Your task to perform on an android device: turn on javascript in the chrome app Image 0: 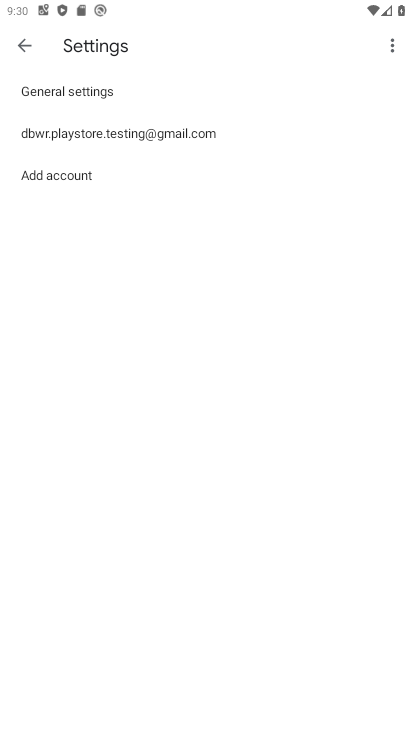
Step 0: press home button
Your task to perform on an android device: turn on javascript in the chrome app Image 1: 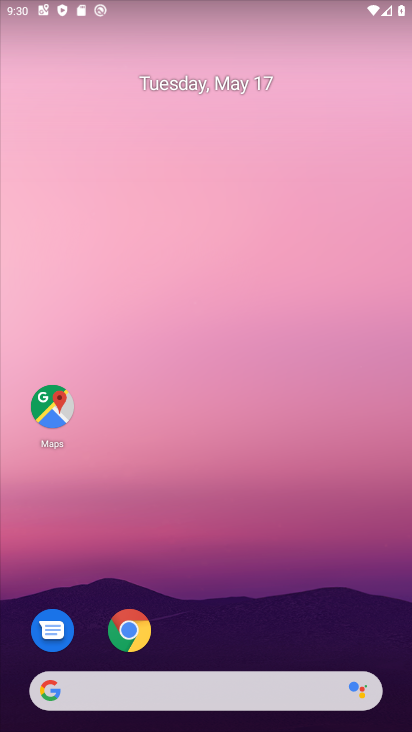
Step 1: click (129, 631)
Your task to perform on an android device: turn on javascript in the chrome app Image 2: 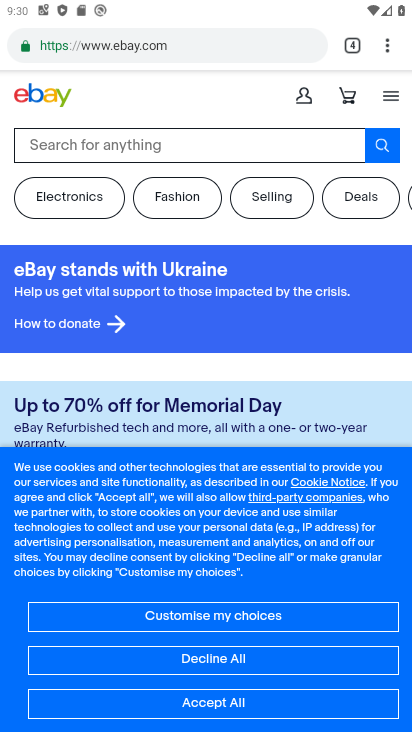
Step 2: click (397, 44)
Your task to perform on an android device: turn on javascript in the chrome app Image 3: 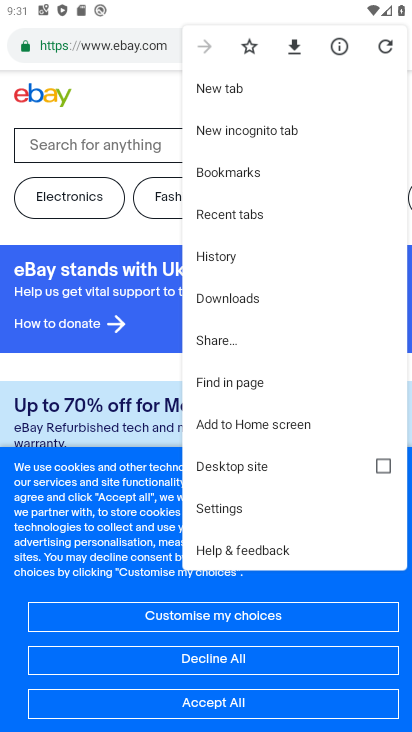
Step 3: click (231, 503)
Your task to perform on an android device: turn on javascript in the chrome app Image 4: 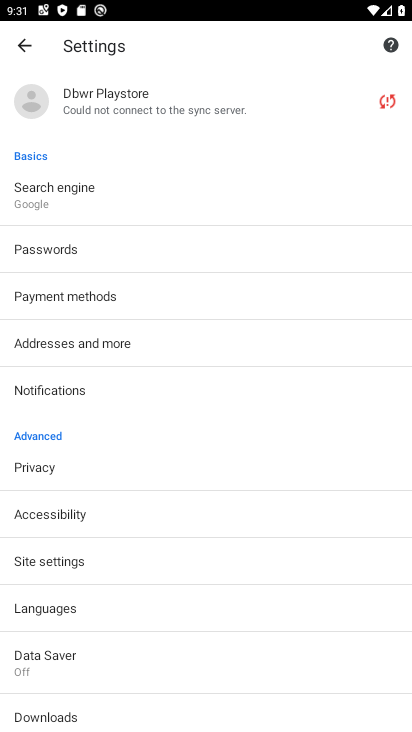
Step 4: click (67, 562)
Your task to perform on an android device: turn on javascript in the chrome app Image 5: 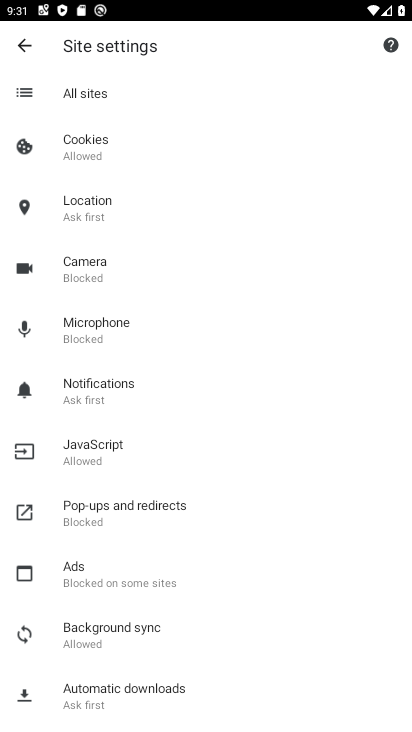
Step 5: click (99, 457)
Your task to perform on an android device: turn on javascript in the chrome app Image 6: 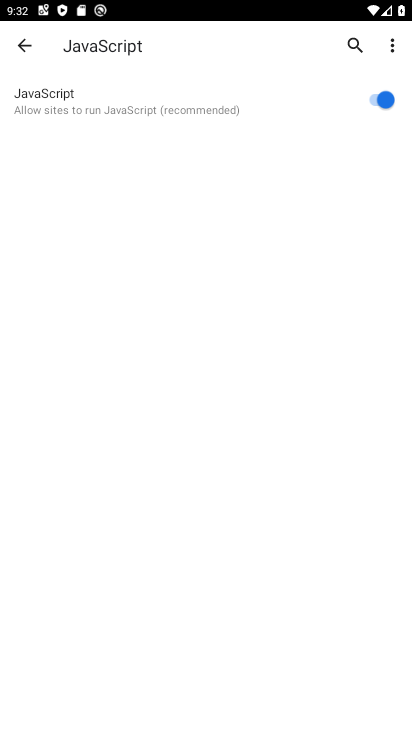
Step 6: task complete